Your task to perform on an android device: empty trash in the gmail app Image 0: 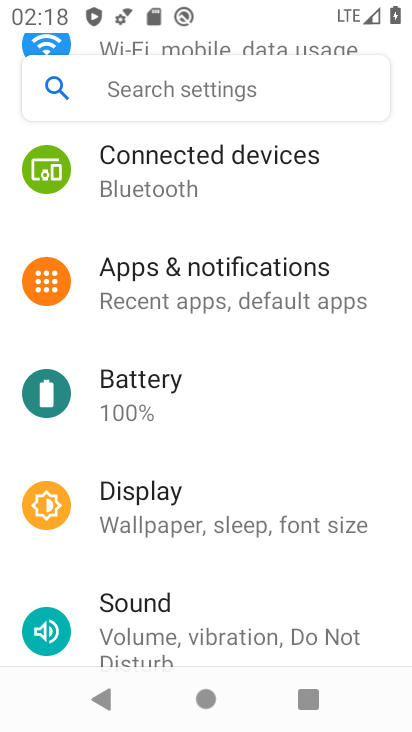
Step 0: press home button
Your task to perform on an android device: empty trash in the gmail app Image 1: 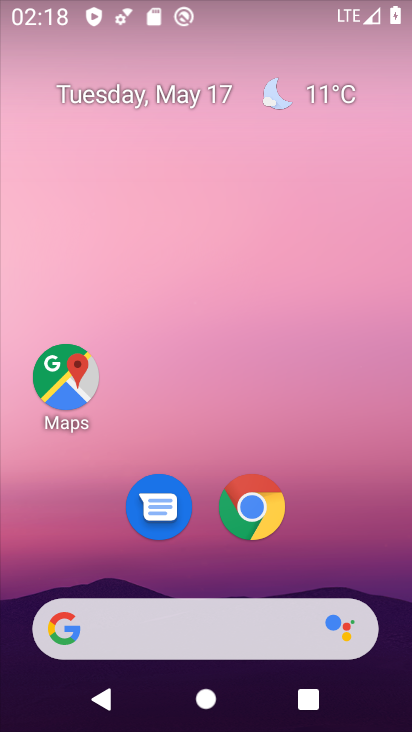
Step 1: drag from (235, 580) to (244, 180)
Your task to perform on an android device: empty trash in the gmail app Image 2: 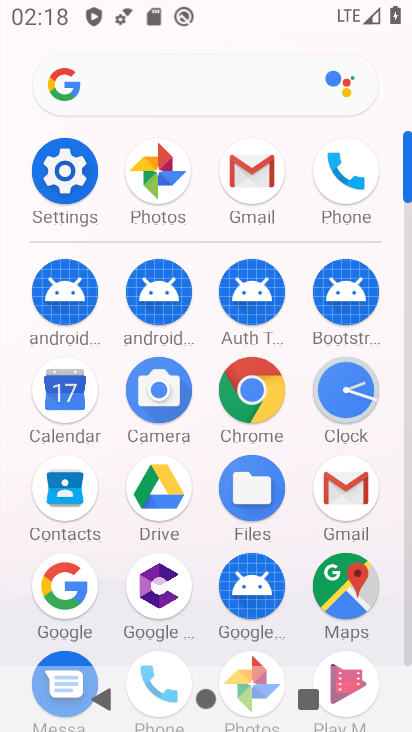
Step 2: click (239, 162)
Your task to perform on an android device: empty trash in the gmail app Image 3: 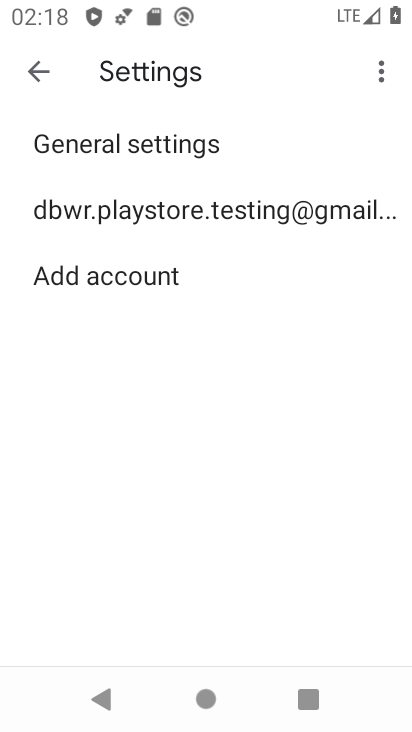
Step 3: click (34, 78)
Your task to perform on an android device: empty trash in the gmail app Image 4: 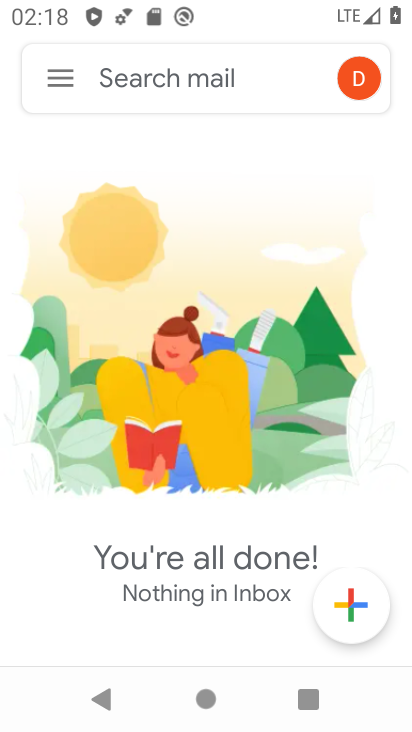
Step 4: click (61, 87)
Your task to perform on an android device: empty trash in the gmail app Image 5: 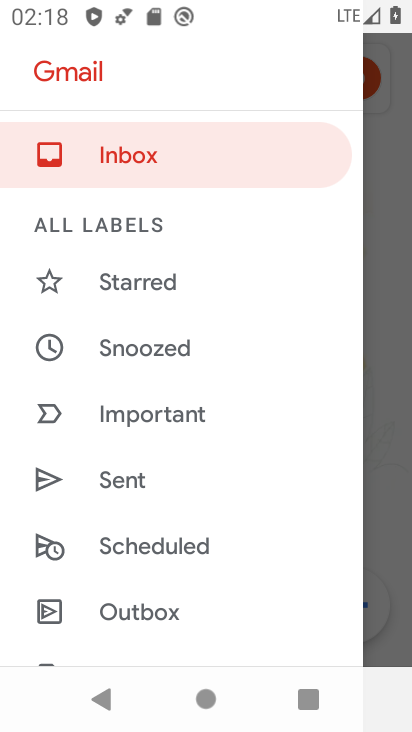
Step 5: drag from (162, 575) to (189, 122)
Your task to perform on an android device: empty trash in the gmail app Image 6: 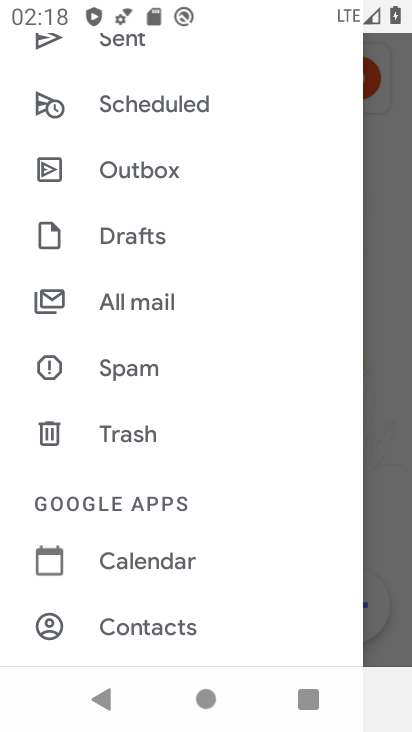
Step 6: click (141, 431)
Your task to perform on an android device: empty trash in the gmail app Image 7: 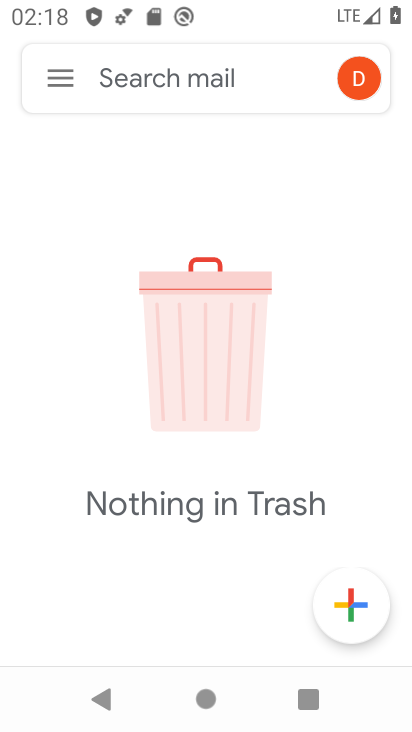
Step 7: task complete